Your task to perform on an android device: open a new tab in the chrome app Image 0: 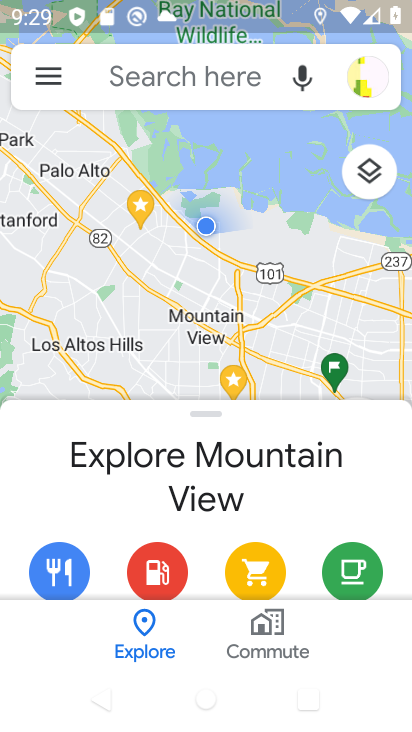
Step 0: press home button
Your task to perform on an android device: open a new tab in the chrome app Image 1: 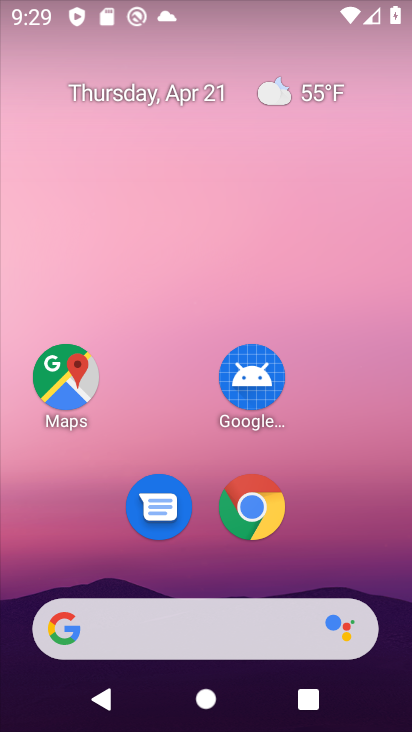
Step 1: drag from (305, 539) to (368, 39)
Your task to perform on an android device: open a new tab in the chrome app Image 2: 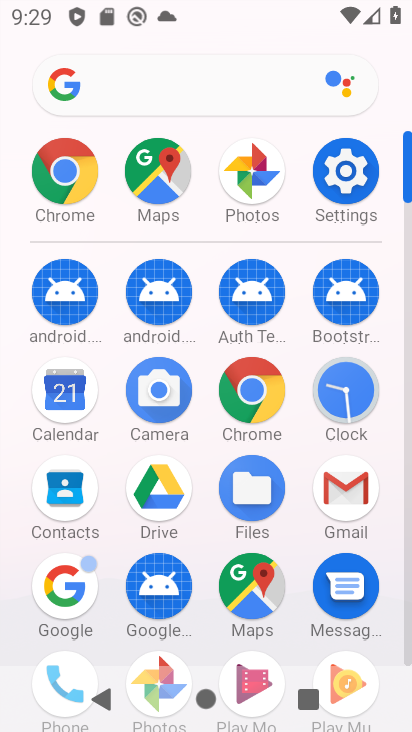
Step 2: click (256, 393)
Your task to perform on an android device: open a new tab in the chrome app Image 3: 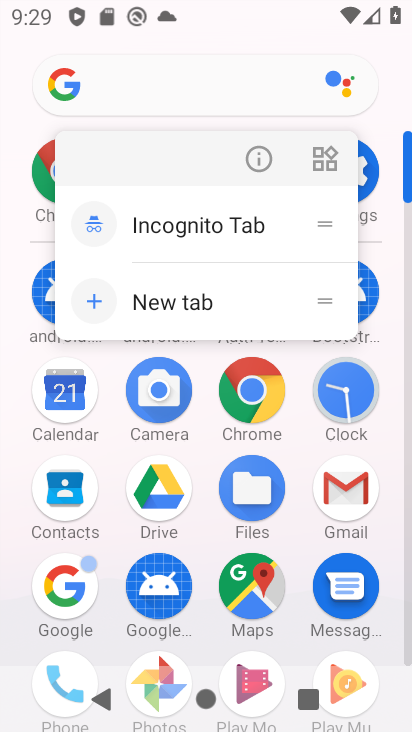
Step 3: click (243, 394)
Your task to perform on an android device: open a new tab in the chrome app Image 4: 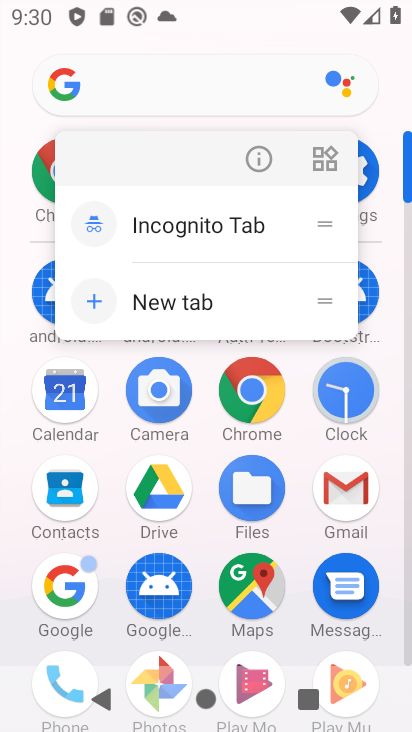
Step 4: click (245, 378)
Your task to perform on an android device: open a new tab in the chrome app Image 5: 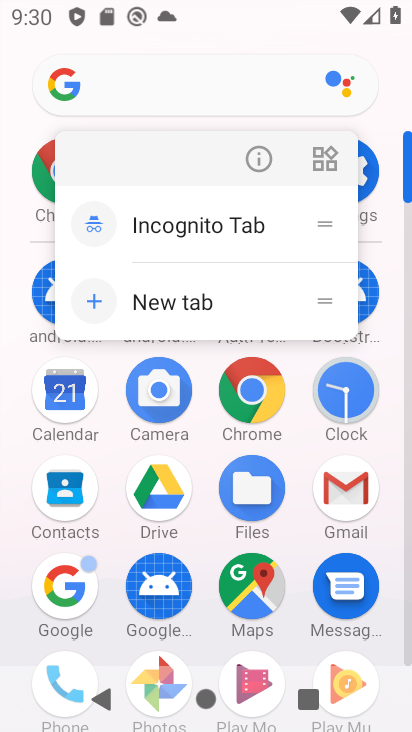
Step 5: click (245, 378)
Your task to perform on an android device: open a new tab in the chrome app Image 6: 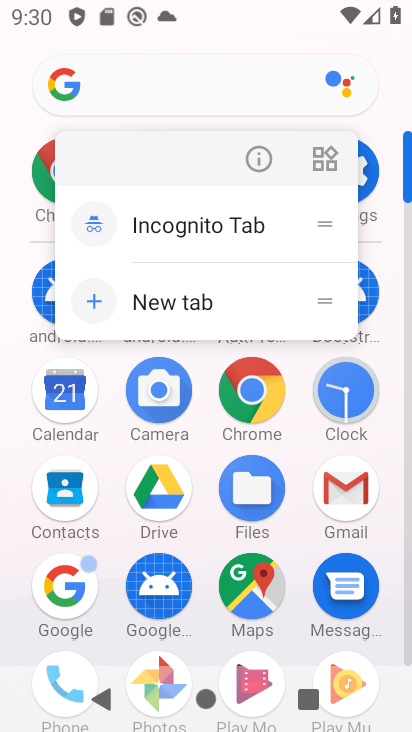
Step 6: click (250, 378)
Your task to perform on an android device: open a new tab in the chrome app Image 7: 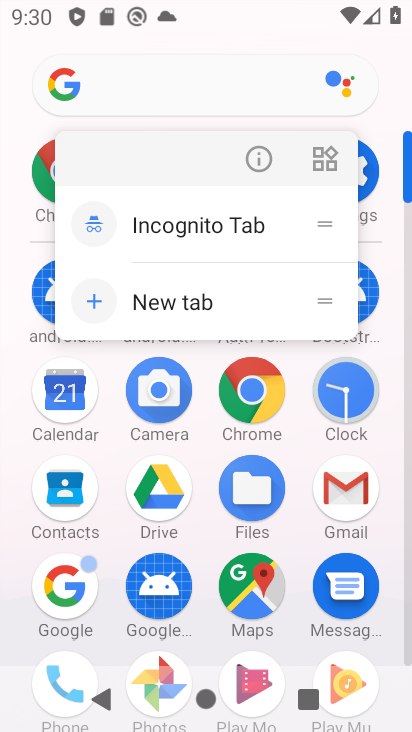
Step 7: click (256, 389)
Your task to perform on an android device: open a new tab in the chrome app Image 8: 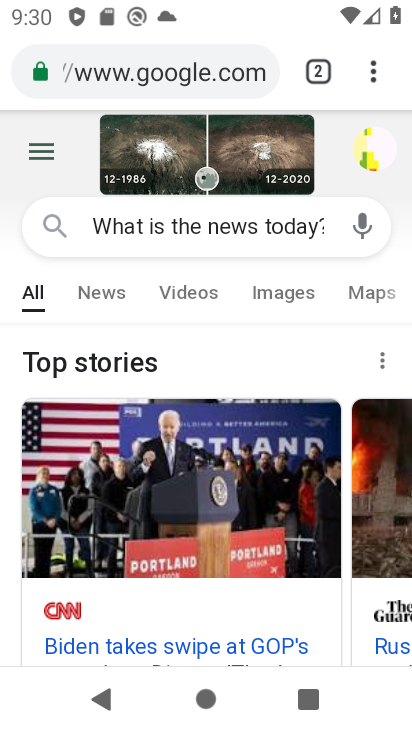
Step 8: click (366, 80)
Your task to perform on an android device: open a new tab in the chrome app Image 9: 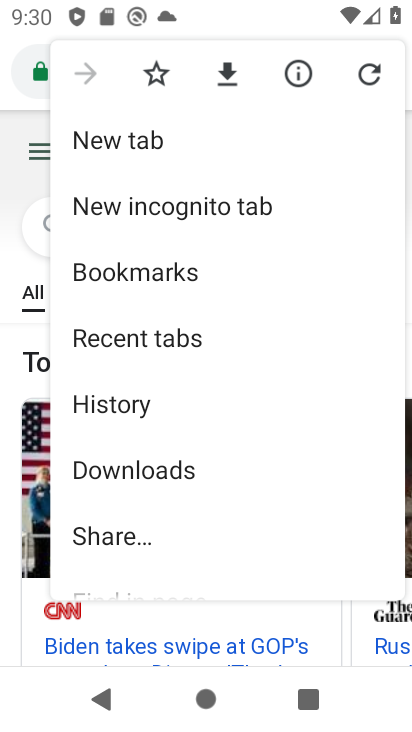
Step 9: click (177, 146)
Your task to perform on an android device: open a new tab in the chrome app Image 10: 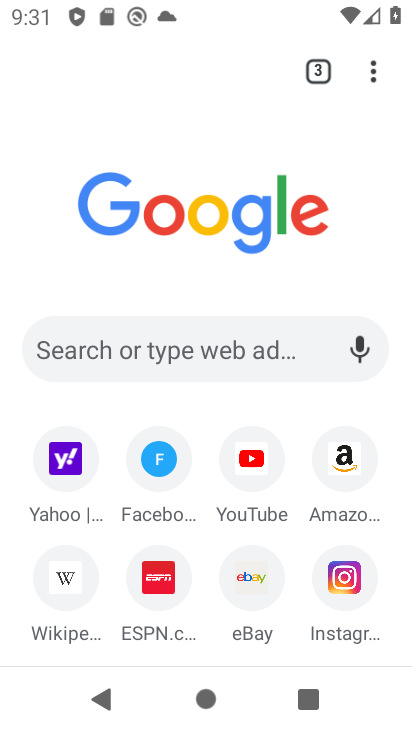
Step 10: task complete